Your task to perform on an android device: Is it going to rain today? Image 0: 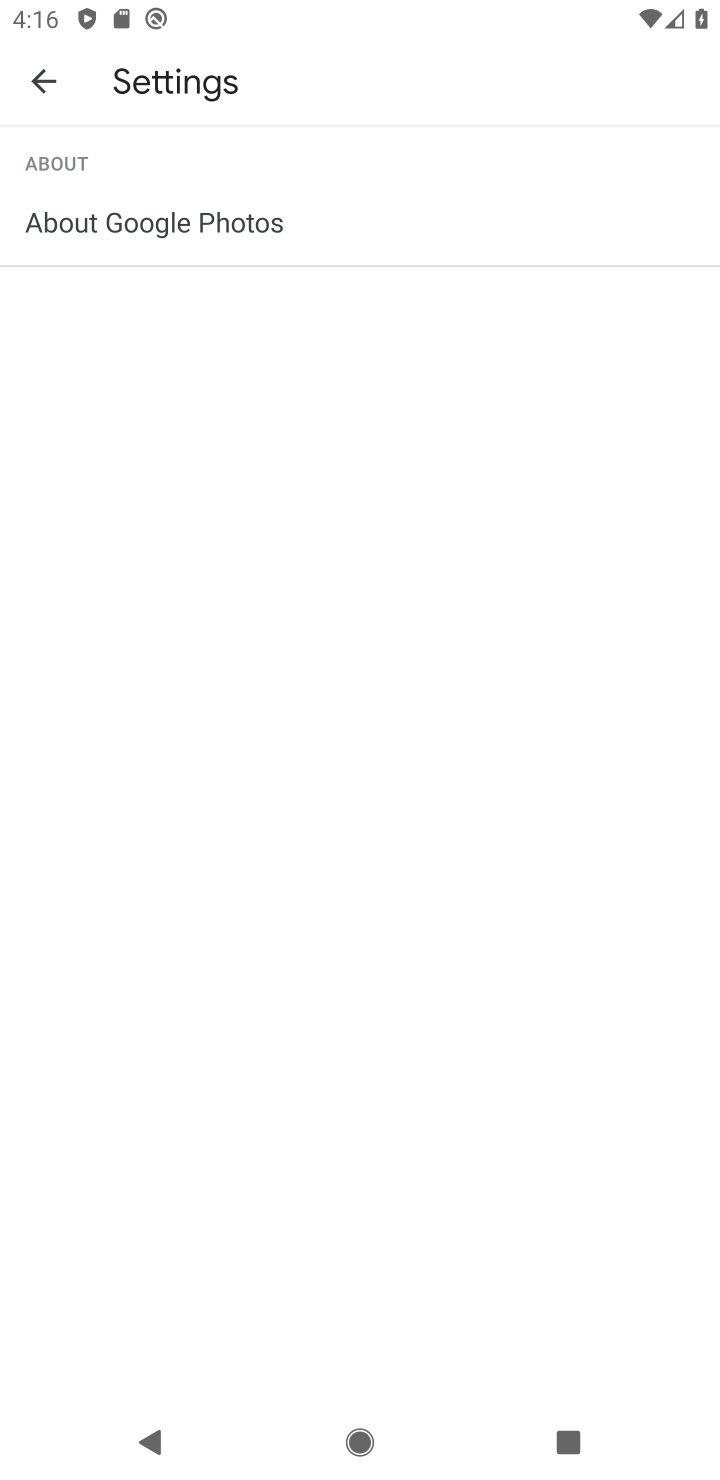
Step 0: press home button
Your task to perform on an android device: Is it going to rain today? Image 1: 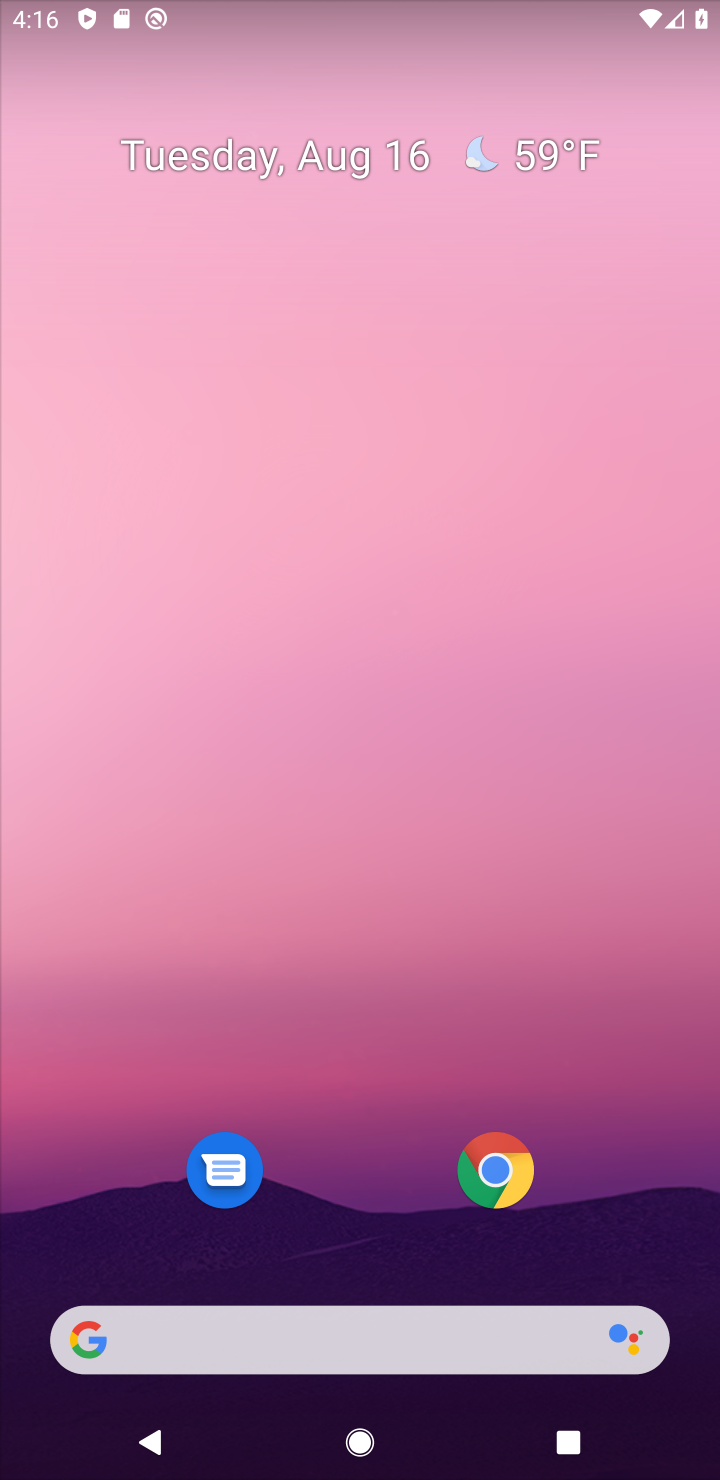
Step 1: click (274, 1380)
Your task to perform on an android device: Is it going to rain today? Image 2: 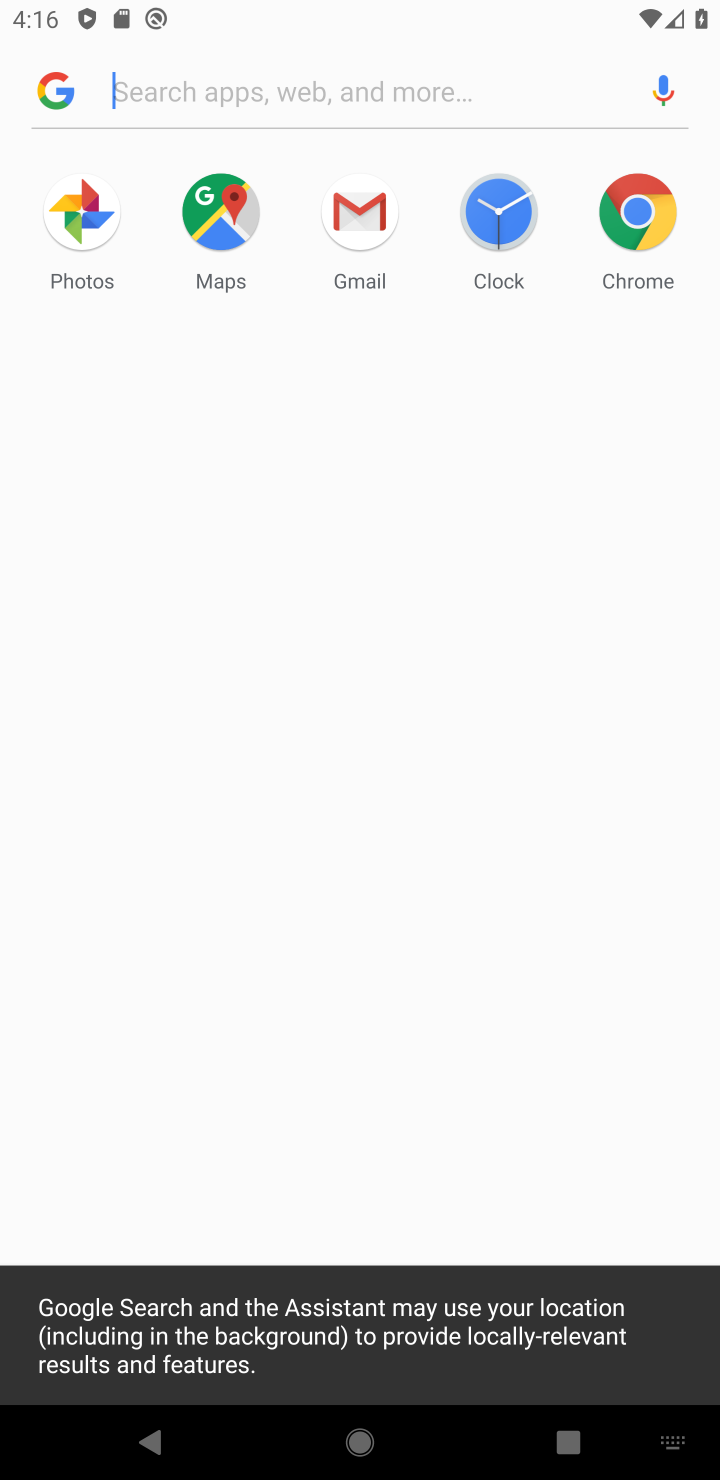
Step 2: type "weather"
Your task to perform on an android device: Is it going to rain today? Image 3: 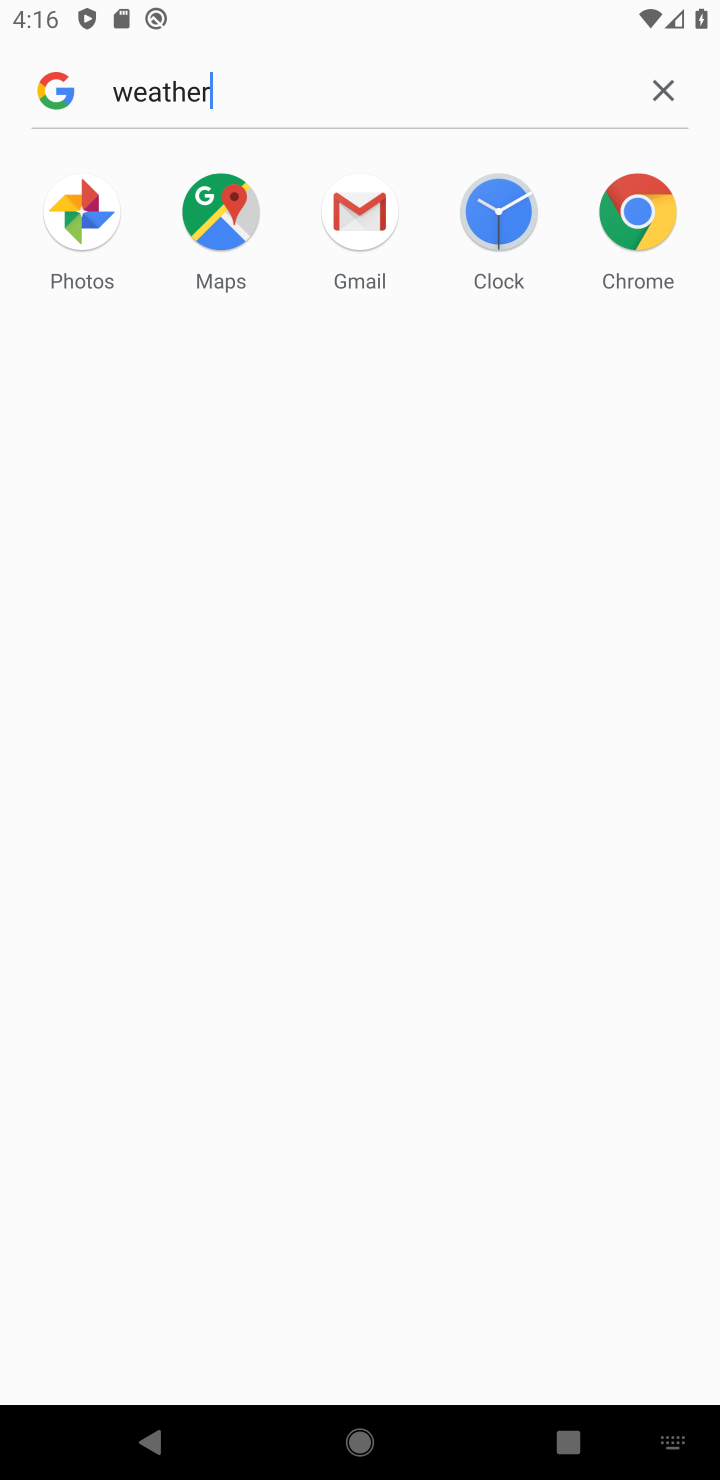
Step 3: type ""
Your task to perform on an android device: Is it going to rain today? Image 4: 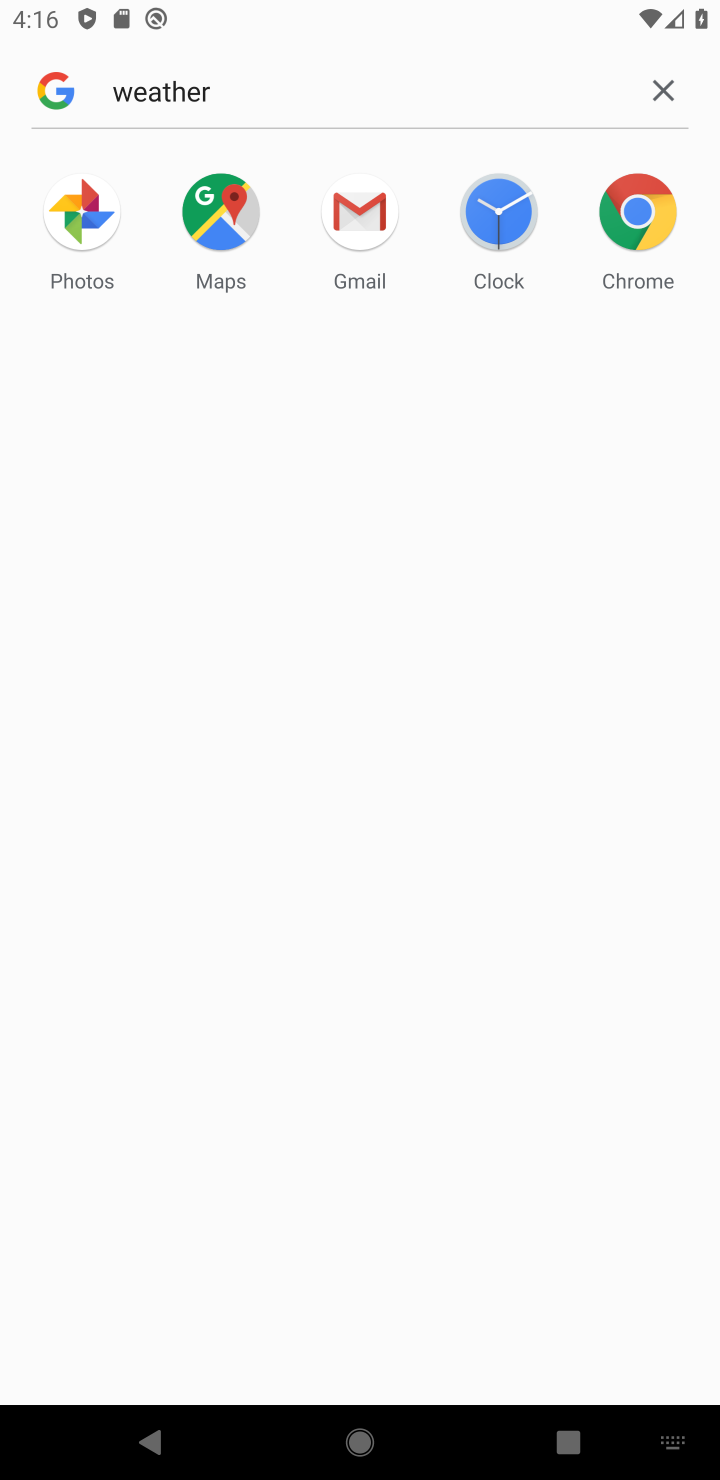
Step 4: click (176, 87)
Your task to perform on an android device: Is it going to rain today? Image 5: 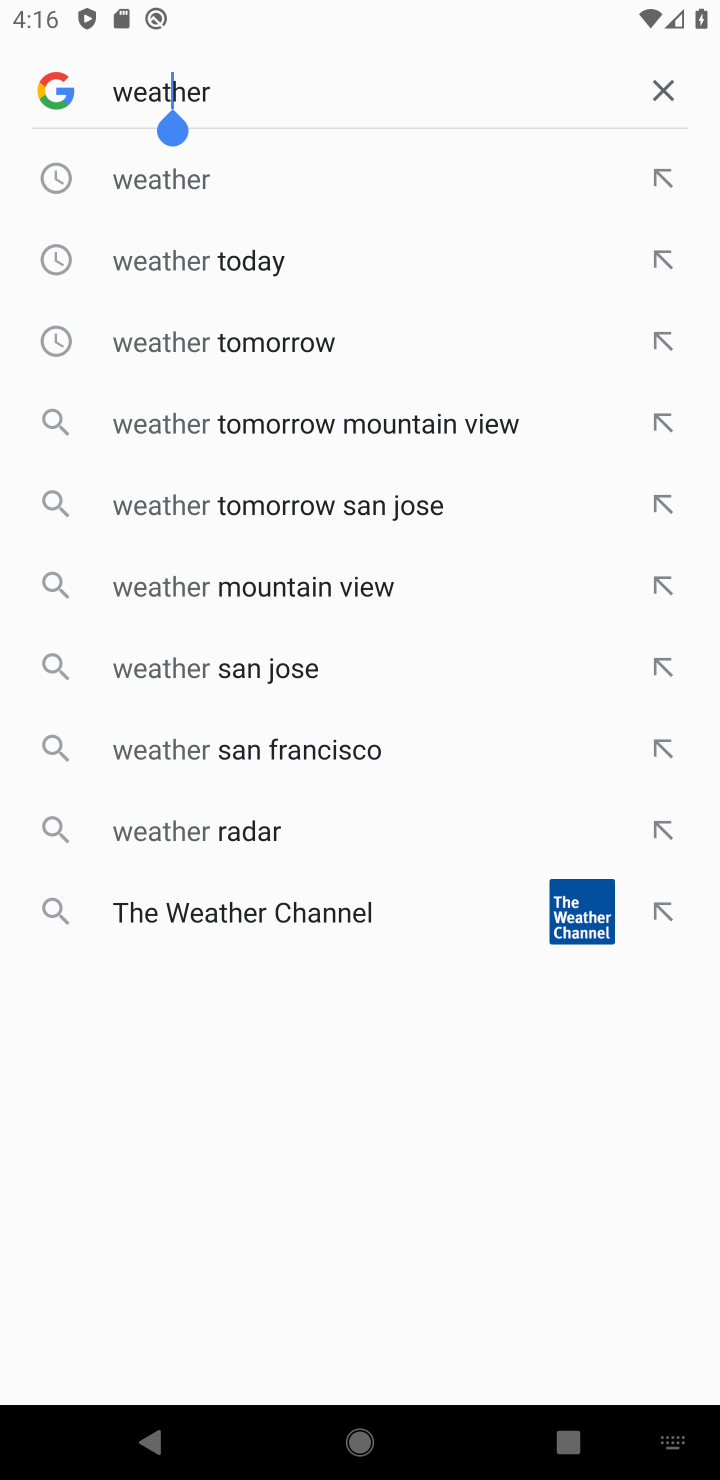
Step 5: click (203, 171)
Your task to perform on an android device: Is it going to rain today? Image 6: 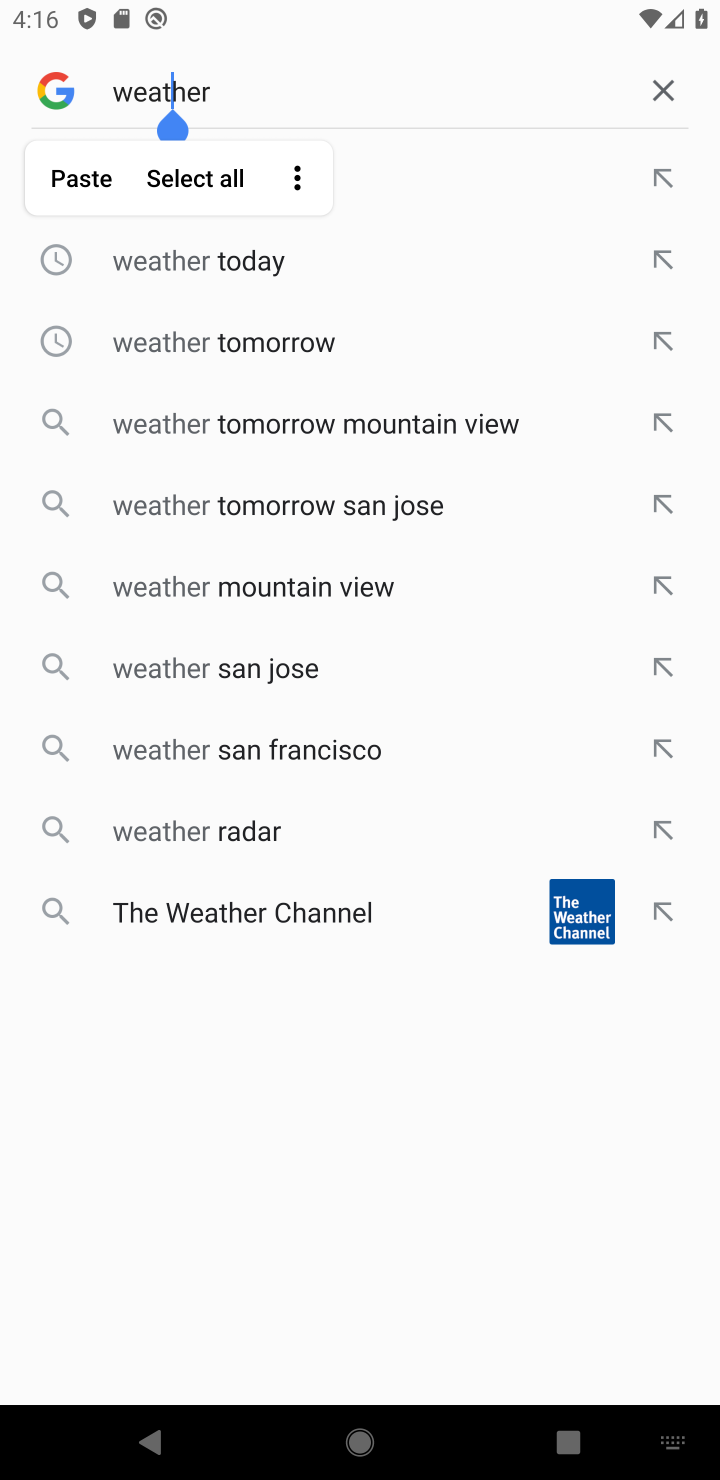
Step 6: click (539, 151)
Your task to perform on an android device: Is it going to rain today? Image 7: 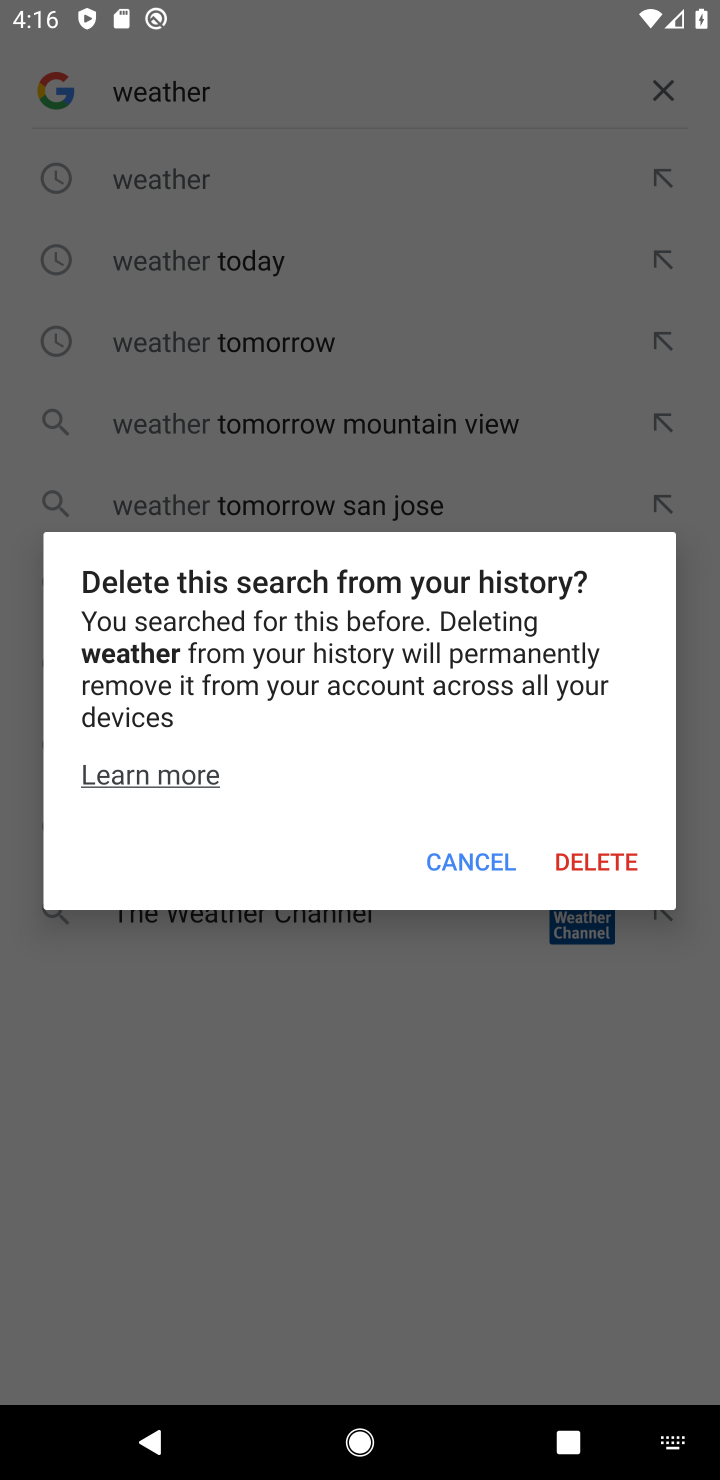
Step 7: click (467, 865)
Your task to perform on an android device: Is it going to rain today? Image 8: 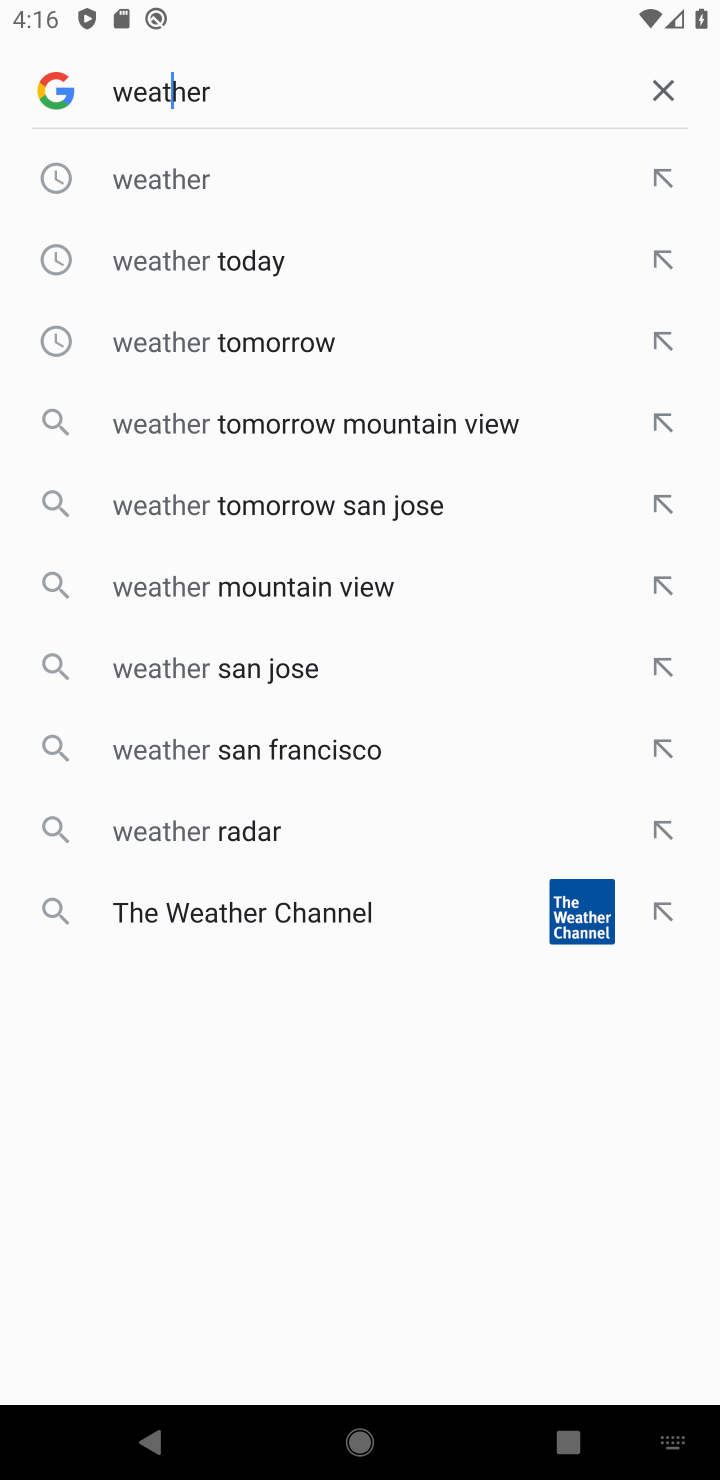
Step 8: click (164, 175)
Your task to perform on an android device: Is it going to rain today? Image 9: 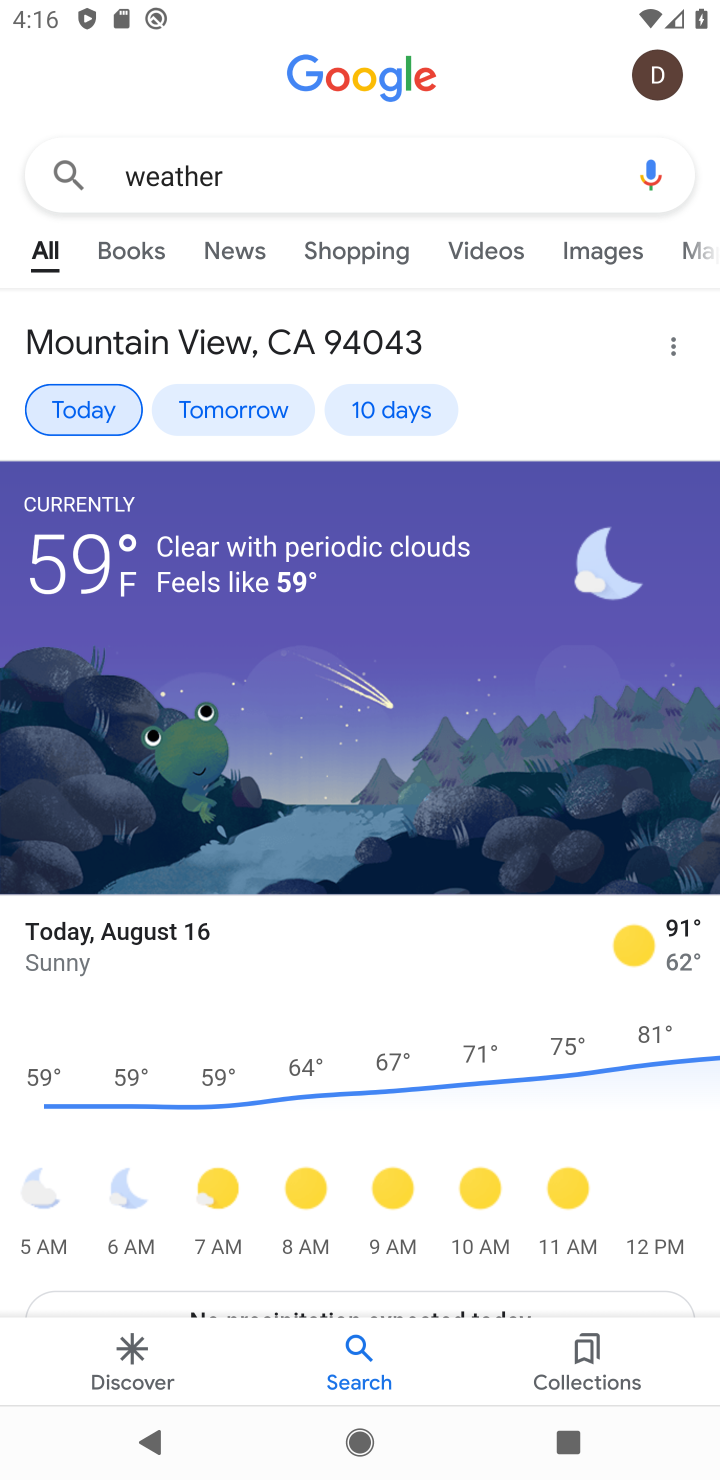
Step 9: task complete